Your task to perform on an android device: open app "Google Maps" Image 0: 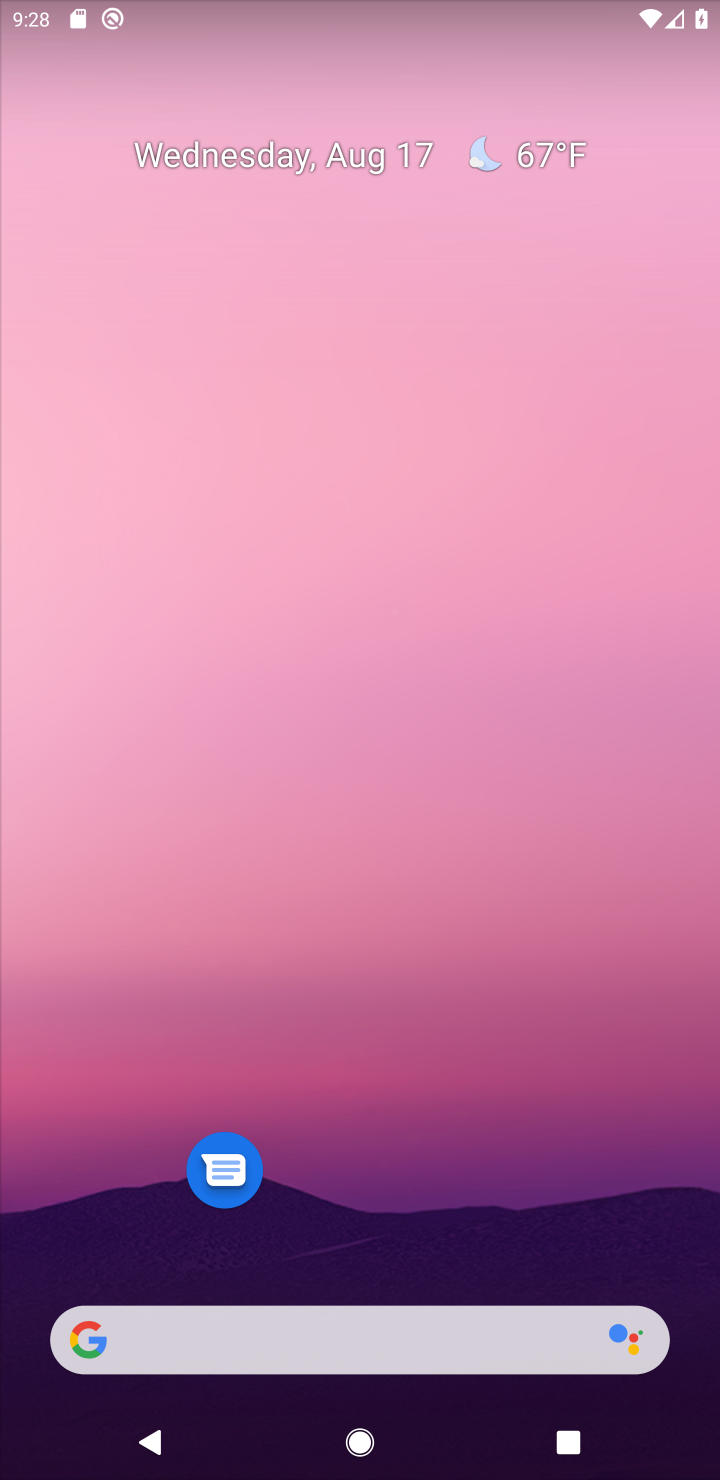
Step 0: drag from (354, 1293) to (195, 407)
Your task to perform on an android device: open app "Google Maps" Image 1: 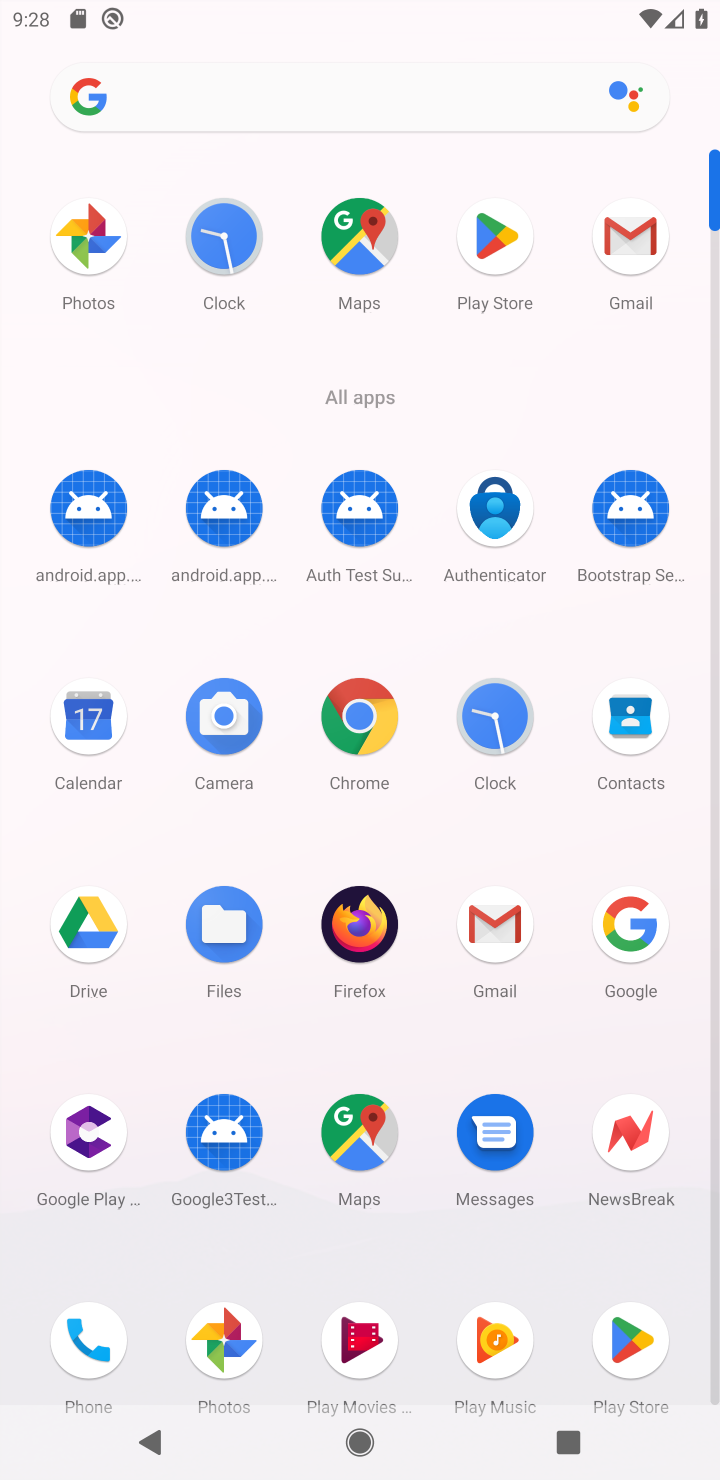
Step 1: click (355, 1168)
Your task to perform on an android device: open app "Google Maps" Image 2: 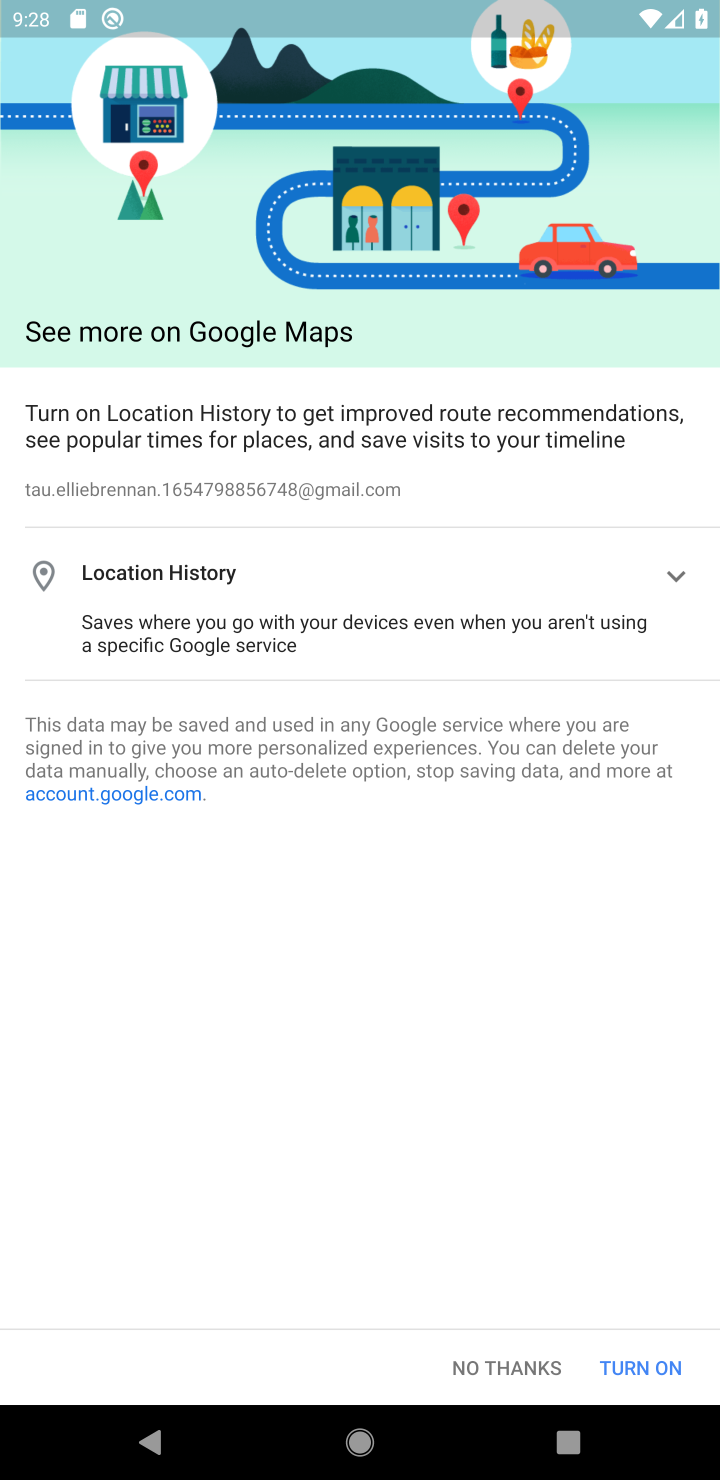
Step 2: click (623, 1365)
Your task to perform on an android device: open app "Google Maps" Image 3: 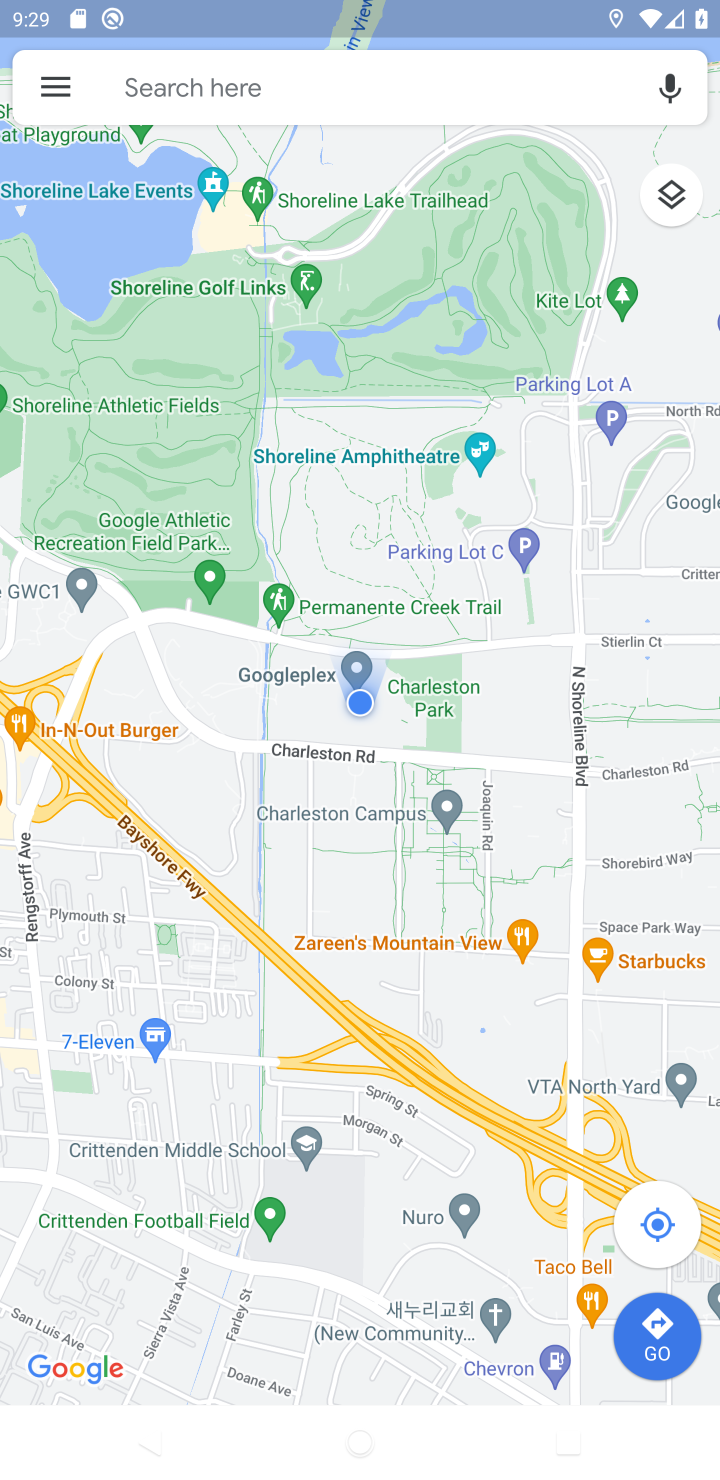
Step 3: task complete